Your task to perform on an android device: Go to CNN.com Image 0: 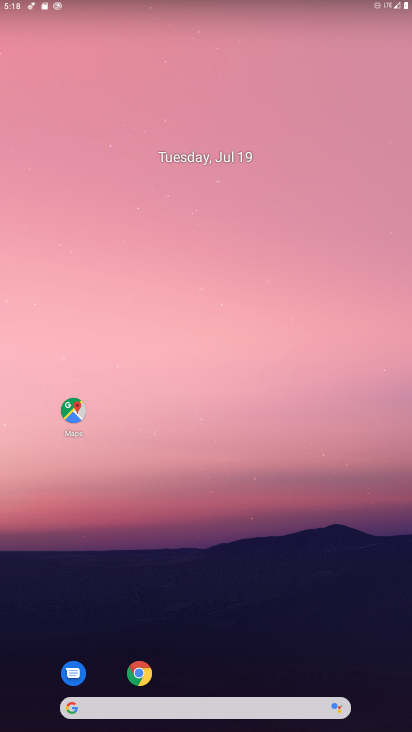
Step 0: click (137, 669)
Your task to perform on an android device: Go to CNN.com Image 1: 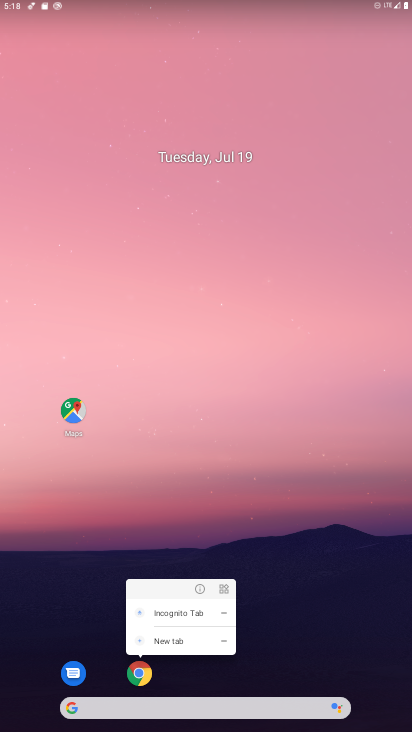
Step 1: click (139, 674)
Your task to perform on an android device: Go to CNN.com Image 2: 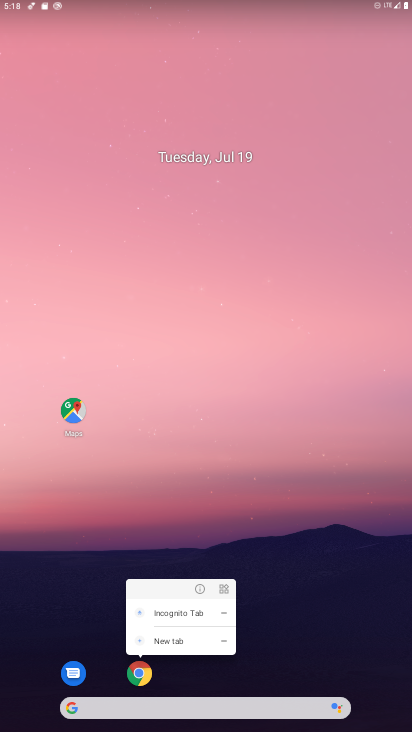
Step 2: click (139, 674)
Your task to perform on an android device: Go to CNN.com Image 3: 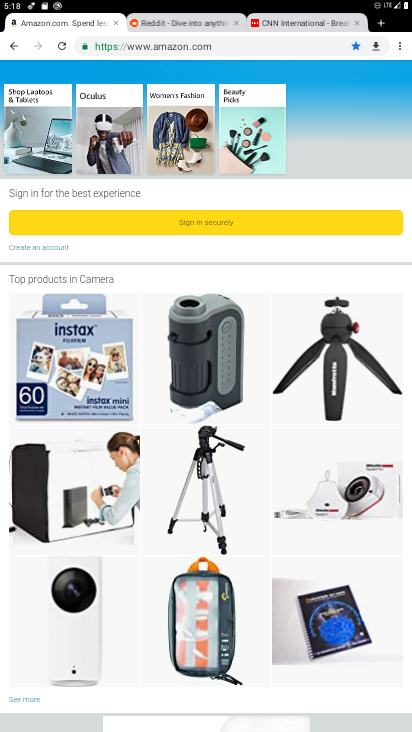
Step 3: click (379, 21)
Your task to perform on an android device: Go to CNN.com Image 4: 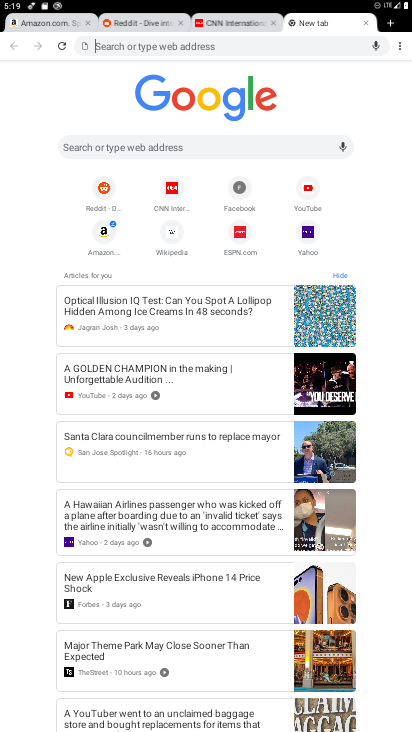
Step 4: click (142, 147)
Your task to perform on an android device: Go to CNN.com Image 5: 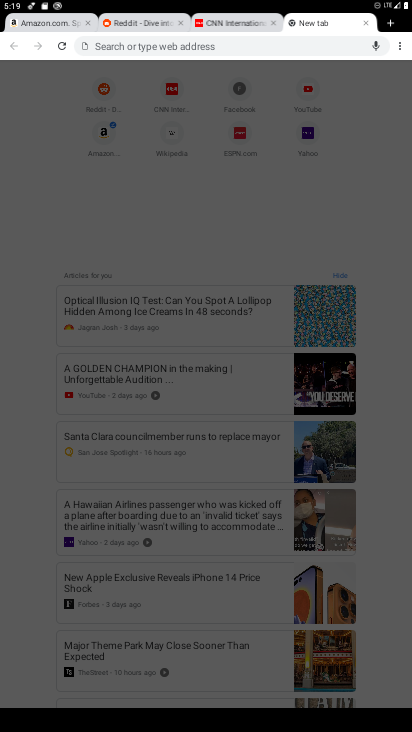
Step 5: type "cnn.com"
Your task to perform on an android device: Go to CNN.com Image 6: 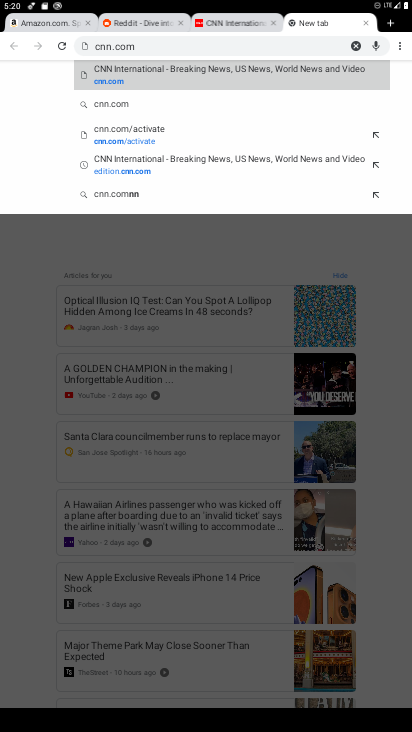
Step 6: click (124, 79)
Your task to perform on an android device: Go to CNN.com Image 7: 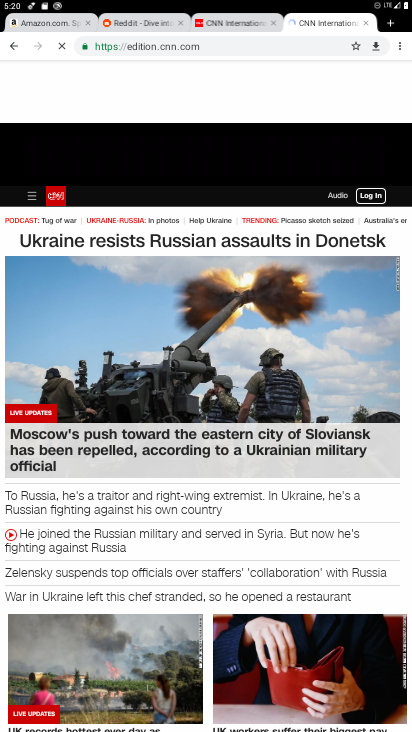
Step 7: task complete